Your task to perform on an android device: Go to eBay Image 0: 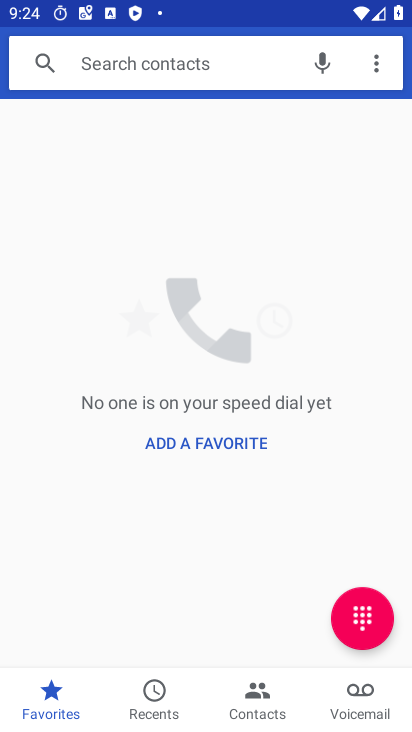
Step 0: press home button
Your task to perform on an android device: Go to eBay Image 1: 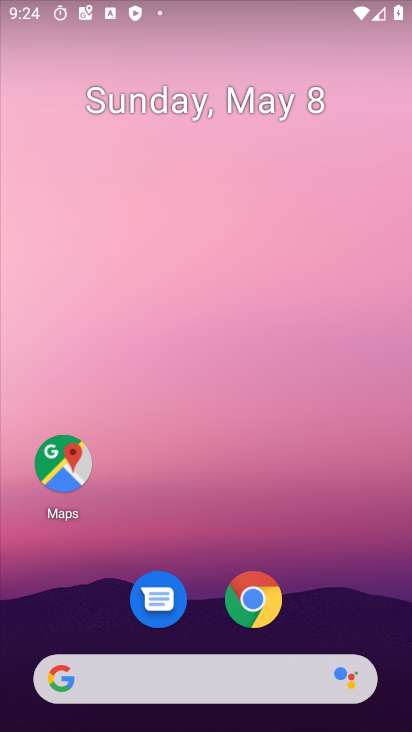
Step 1: click (263, 576)
Your task to perform on an android device: Go to eBay Image 2: 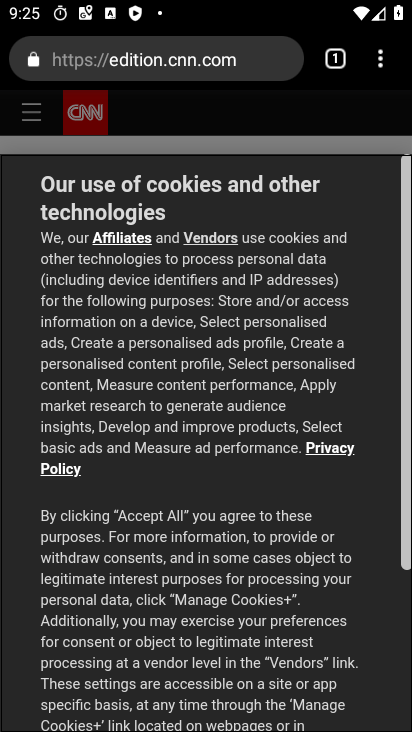
Step 2: click (250, 76)
Your task to perform on an android device: Go to eBay Image 3: 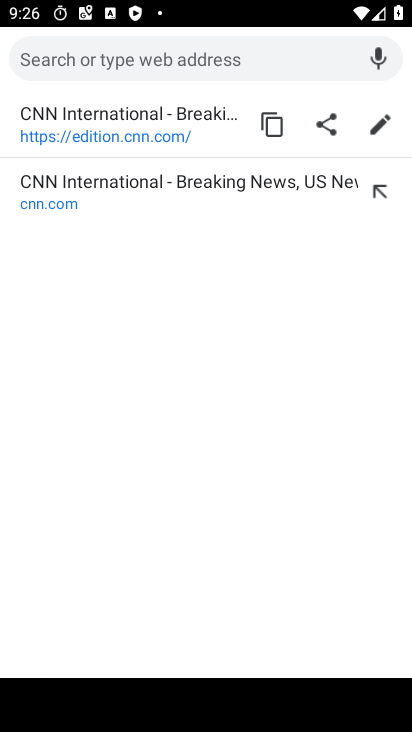
Step 3: type "ebay.com"
Your task to perform on an android device: Go to eBay Image 4: 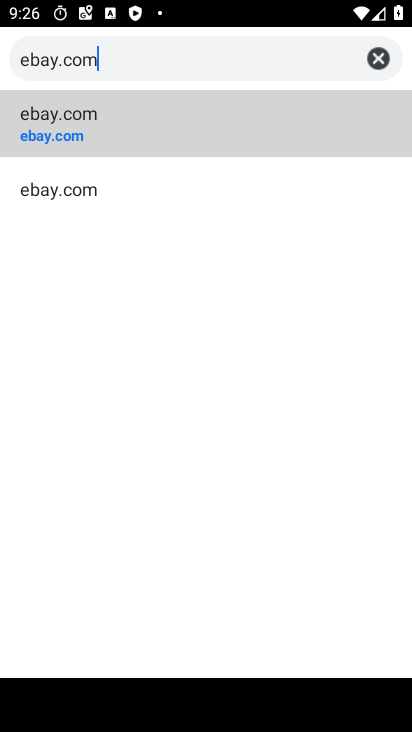
Step 4: click (211, 140)
Your task to perform on an android device: Go to eBay Image 5: 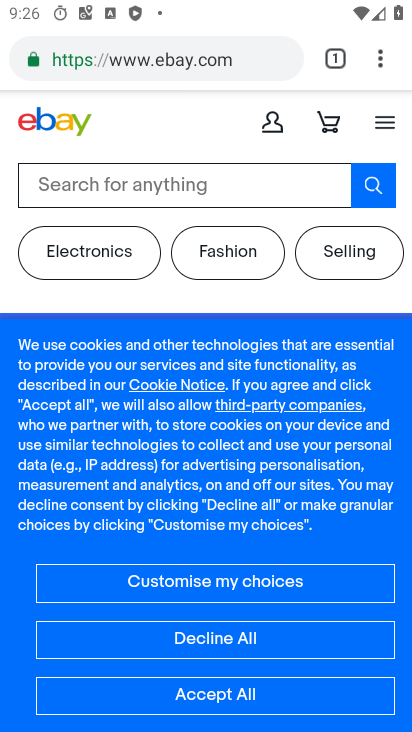
Step 5: task complete